Your task to perform on an android device: find snoozed emails in the gmail app Image 0: 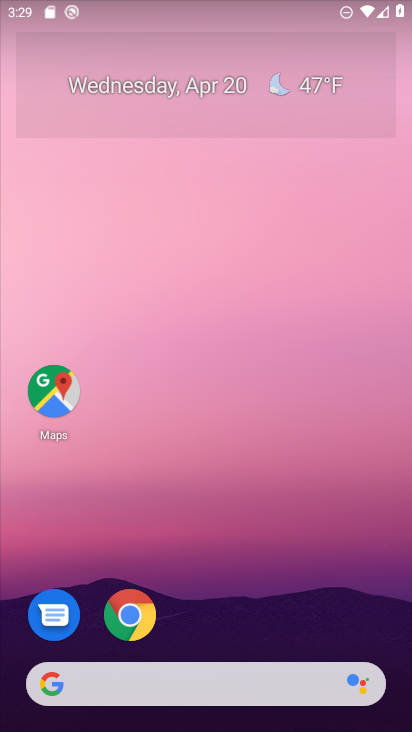
Step 0: drag from (226, 455) to (204, 171)
Your task to perform on an android device: find snoozed emails in the gmail app Image 1: 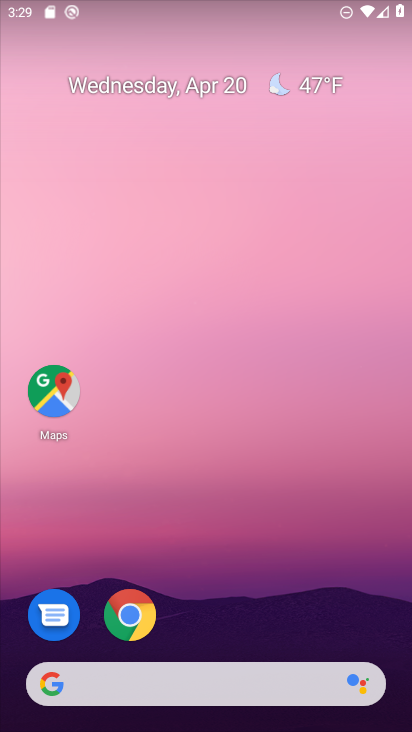
Step 1: drag from (240, 656) to (195, 70)
Your task to perform on an android device: find snoozed emails in the gmail app Image 2: 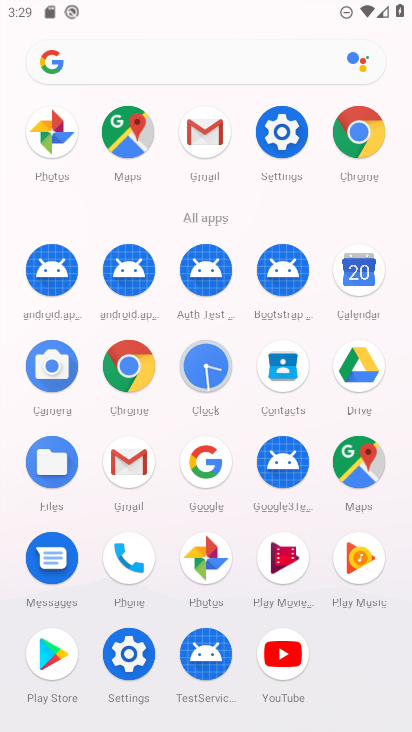
Step 2: click (204, 122)
Your task to perform on an android device: find snoozed emails in the gmail app Image 3: 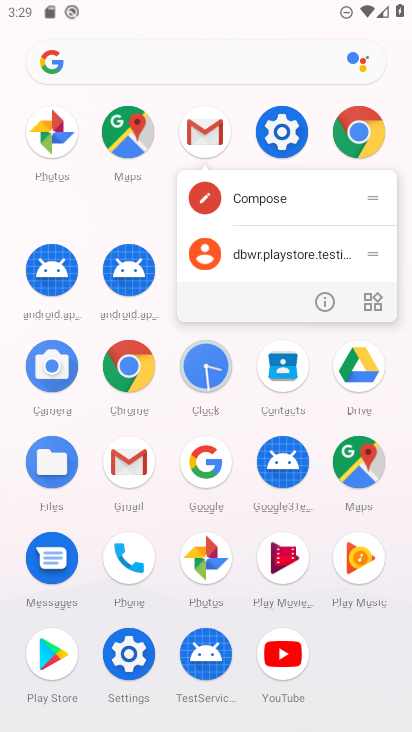
Step 3: click (204, 127)
Your task to perform on an android device: find snoozed emails in the gmail app Image 4: 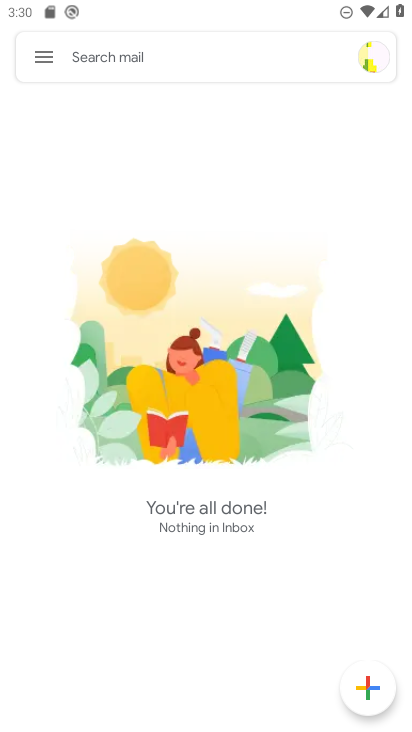
Step 4: click (44, 57)
Your task to perform on an android device: find snoozed emails in the gmail app Image 5: 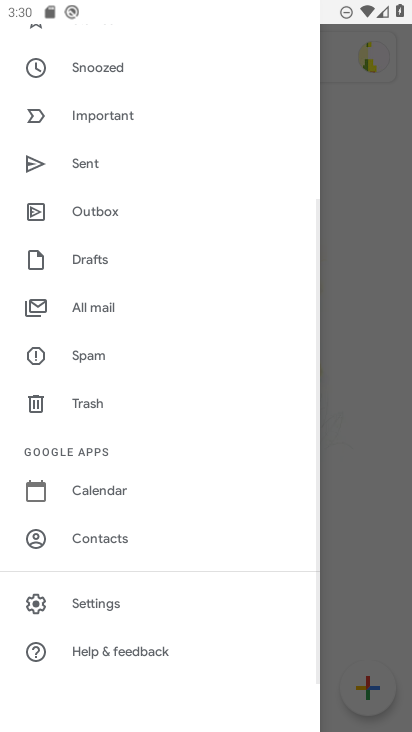
Step 5: click (124, 71)
Your task to perform on an android device: find snoozed emails in the gmail app Image 6: 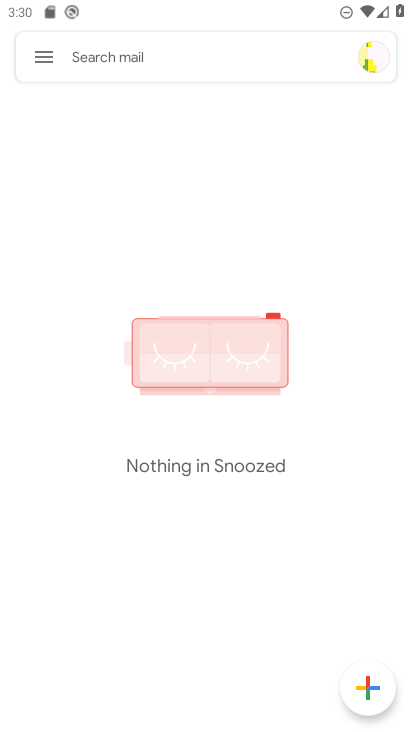
Step 6: task complete